Your task to perform on an android device: change the clock style Image 0: 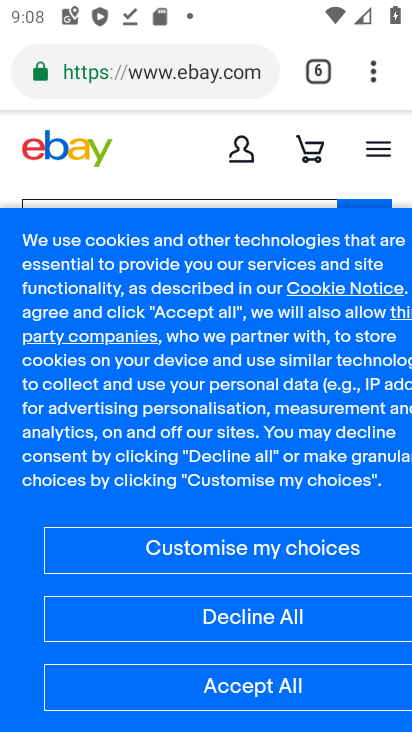
Step 0: press back button
Your task to perform on an android device: change the clock style Image 1: 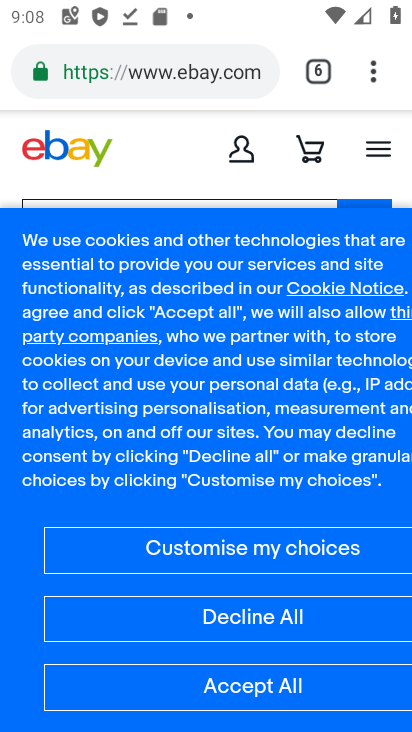
Step 1: press back button
Your task to perform on an android device: change the clock style Image 2: 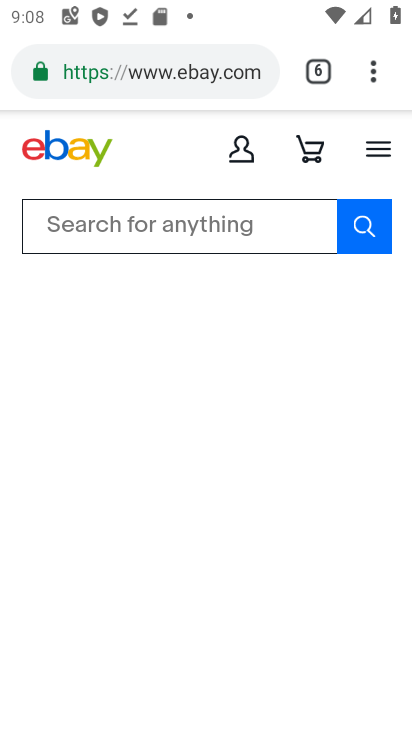
Step 2: press back button
Your task to perform on an android device: change the clock style Image 3: 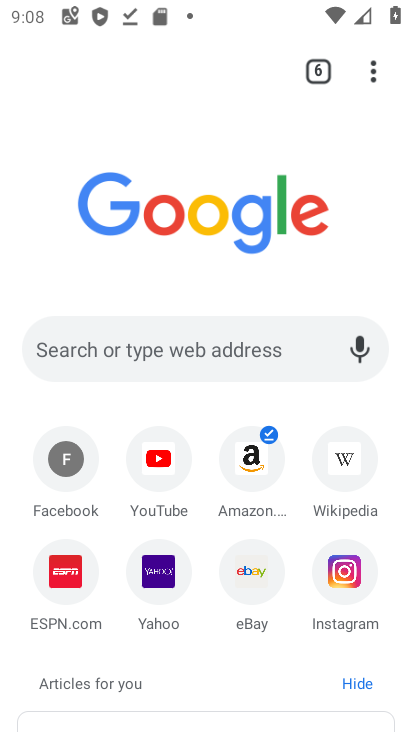
Step 3: press back button
Your task to perform on an android device: change the clock style Image 4: 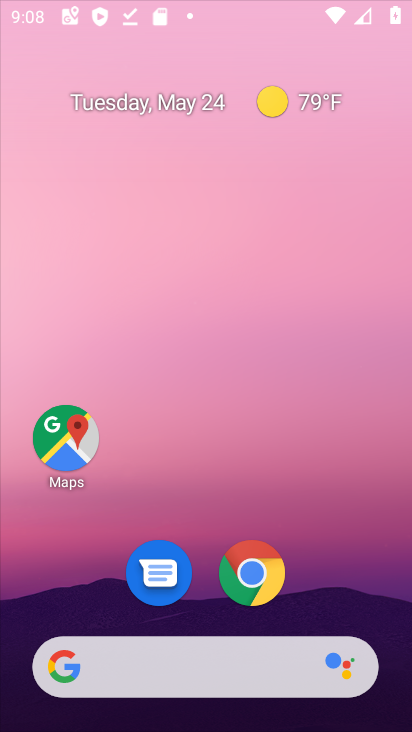
Step 4: press back button
Your task to perform on an android device: change the clock style Image 5: 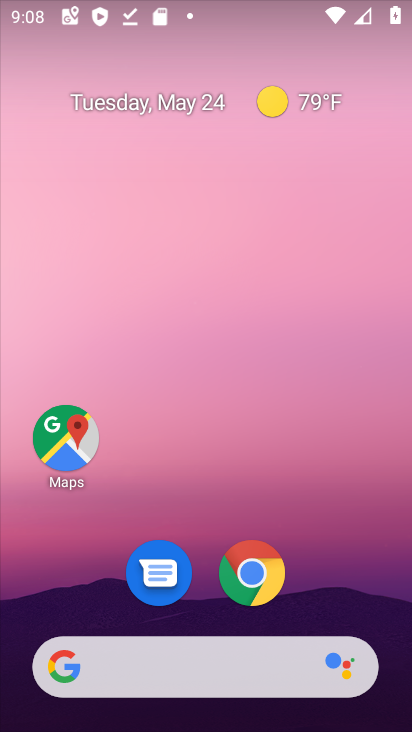
Step 5: drag from (300, 670) to (234, 6)
Your task to perform on an android device: change the clock style Image 6: 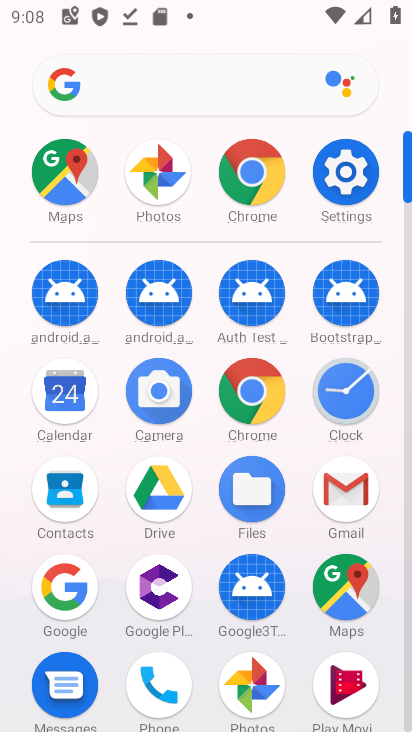
Step 6: click (334, 378)
Your task to perform on an android device: change the clock style Image 7: 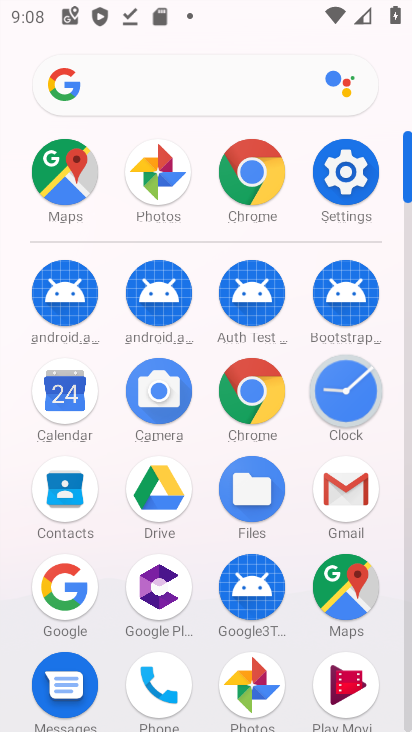
Step 7: click (334, 378)
Your task to perform on an android device: change the clock style Image 8: 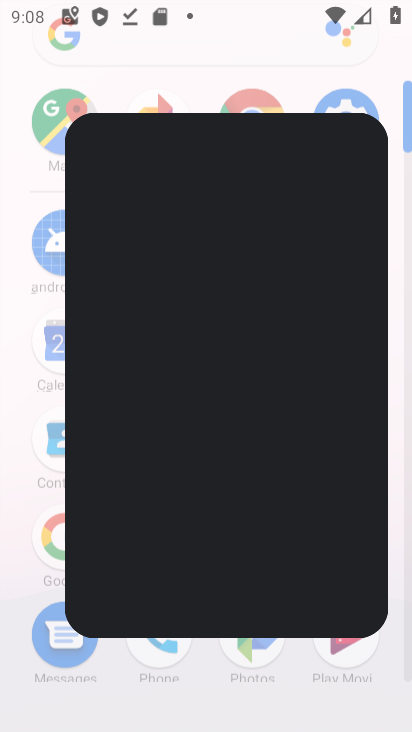
Step 8: click (334, 378)
Your task to perform on an android device: change the clock style Image 9: 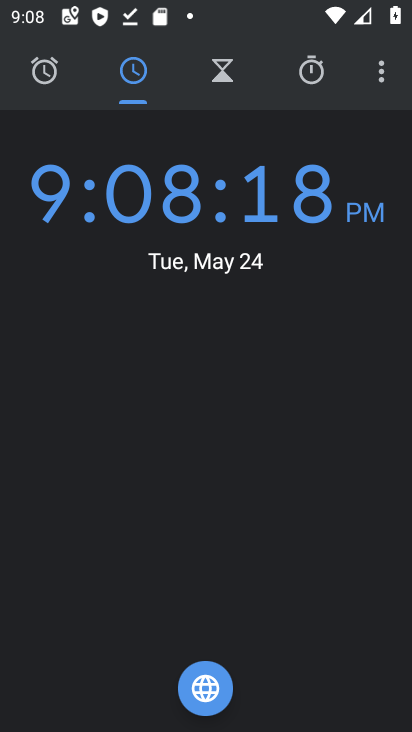
Step 9: click (386, 80)
Your task to perform on an android device: change the clock style Image 10: 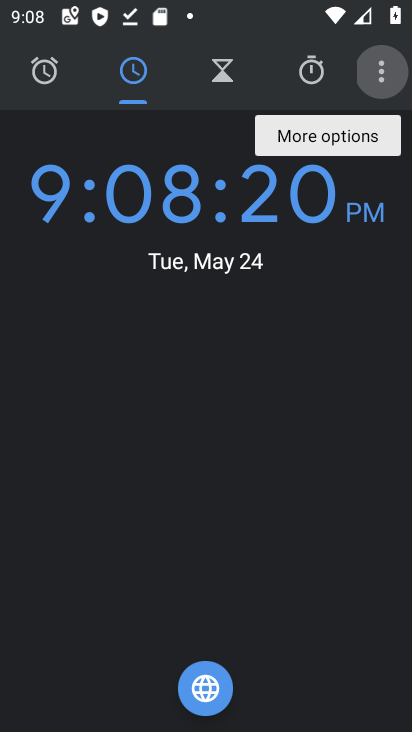
Step 10: click (386, 80)
Your task to perform on an android device: change the clock style Image 11: 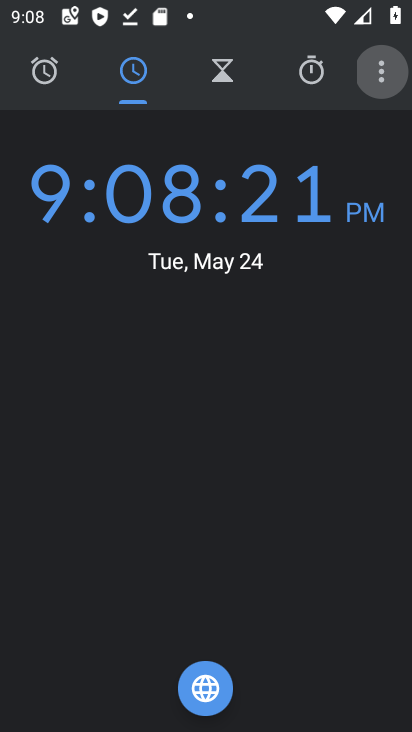
Step 11: click (386, 80)
Your task to perform on an android device: change the clock style Image 12: 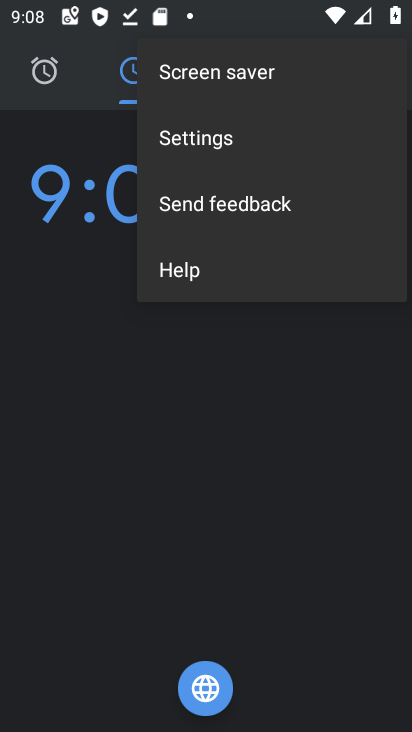
Step 12: click (177, 132)
Your task to perform on an android device: change the clock style Image 13: 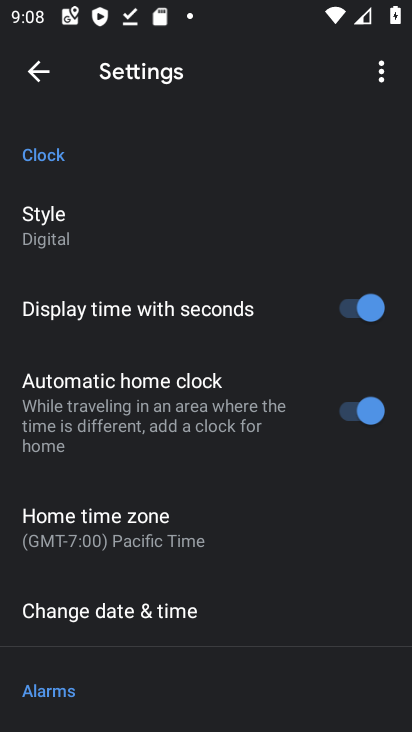
Step 13: click (125, 213)
Your task to perform on an android device: change the clock style Image 14: 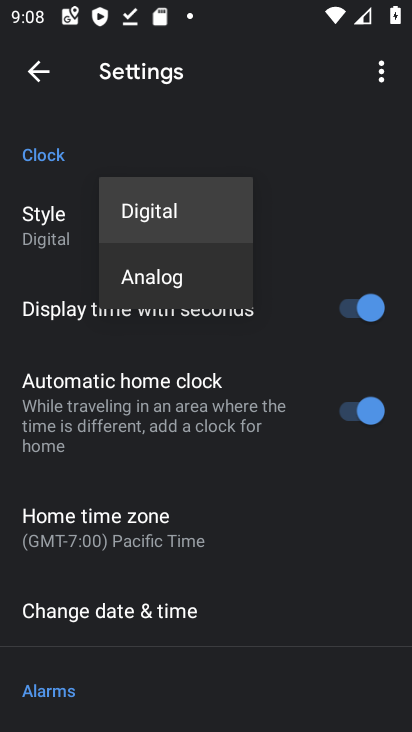
Step 14: click (171, 305)
Your task to perform on an android device: change the clock style Image 15: 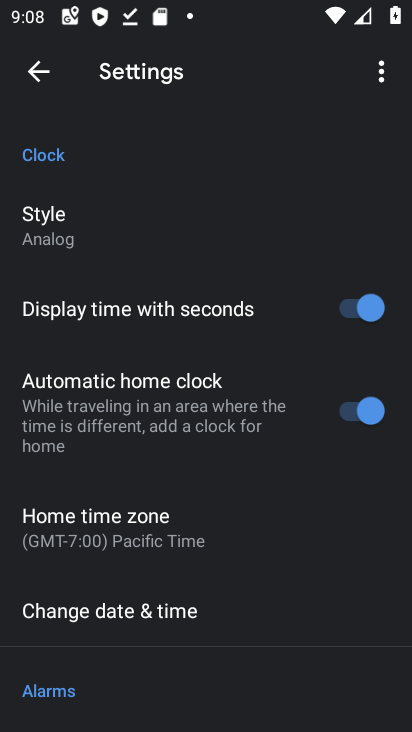
Step 15: task complete